Your task to perform on an android device: check data usage Image 0: 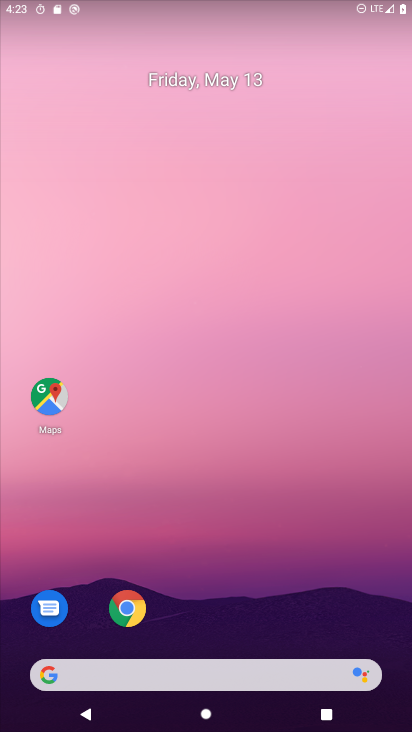
Step 0: click (234, 589)
Your task to perform on an android device: check data usage Image 1: 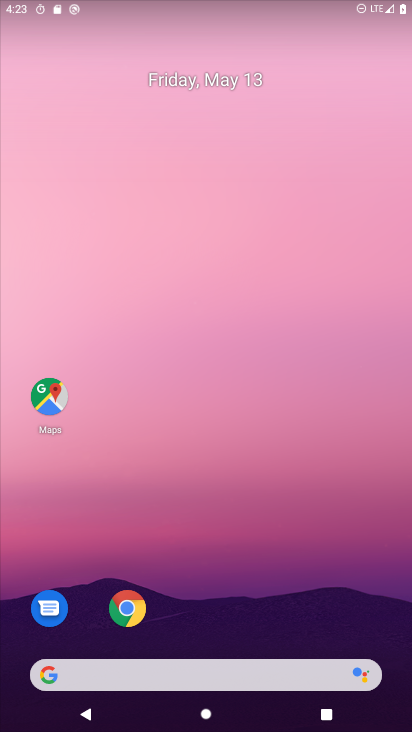
Step 1: drag from (143, 3) to (126, 535)
Your task to perform on an android device: check data usage Image 2: 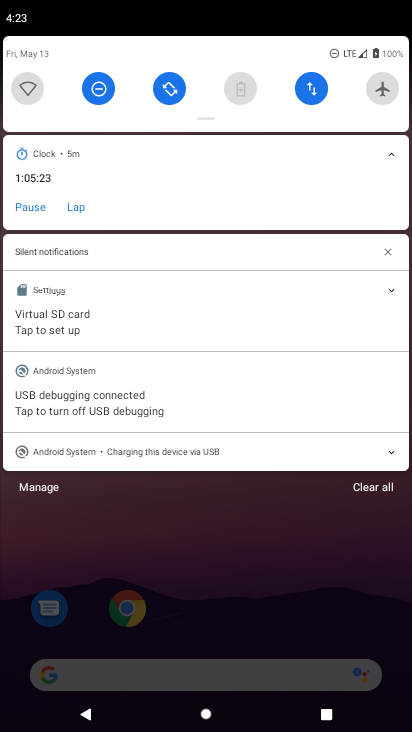
Step 2: click (305, 92)
Your task to perform on an android device: check data usage Image 3: 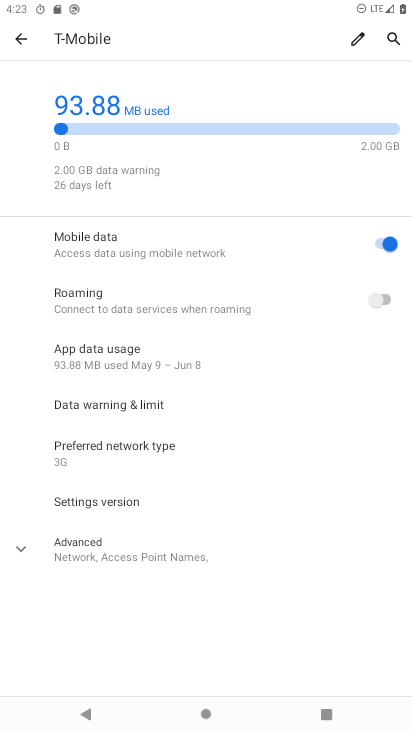
Step 3: task complete